Your task to perform on an android device: check battery use Image 0: 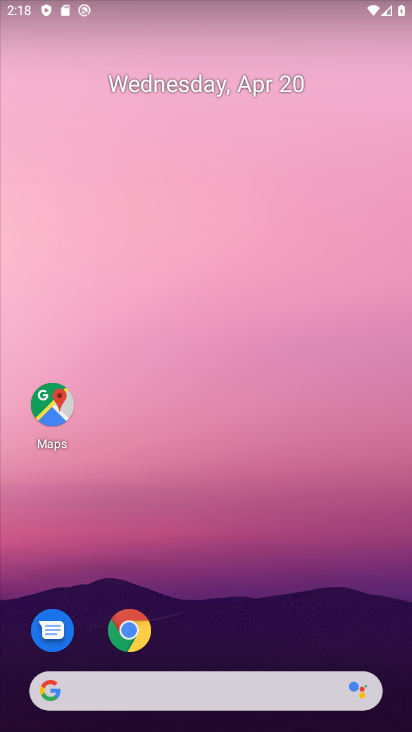
Step 0: press home button
Your task to perform on an android device: check battery use Image 1: 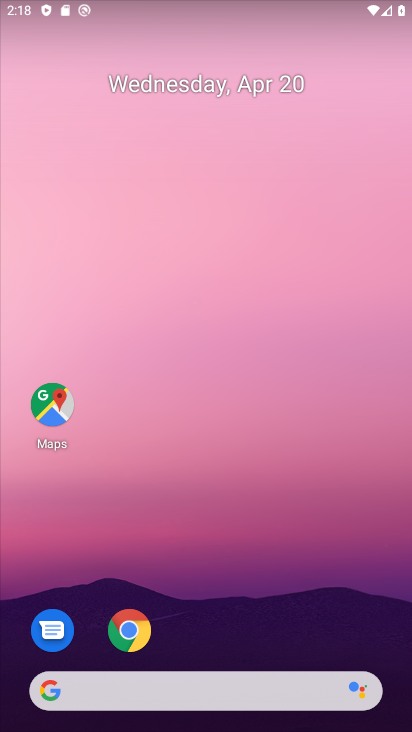
Step 1: drag from (173, 544) to (77, 148)
Your task to perform on an android device: check battery use Image 2: 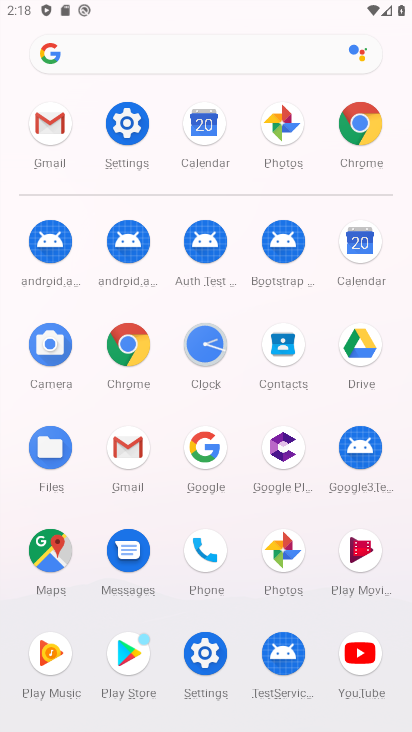
Step 2: click (143, 109)
Your task to perform on an android device: check battery use Image 3: 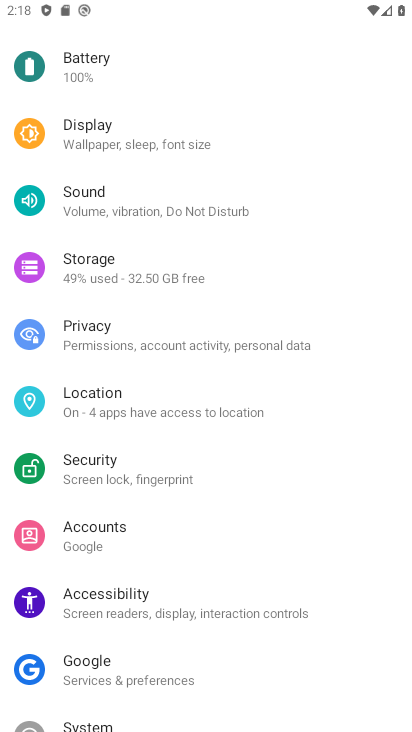
Step 3: click (70, 72)
Your task to perform on an android device: check battery use Image 4: 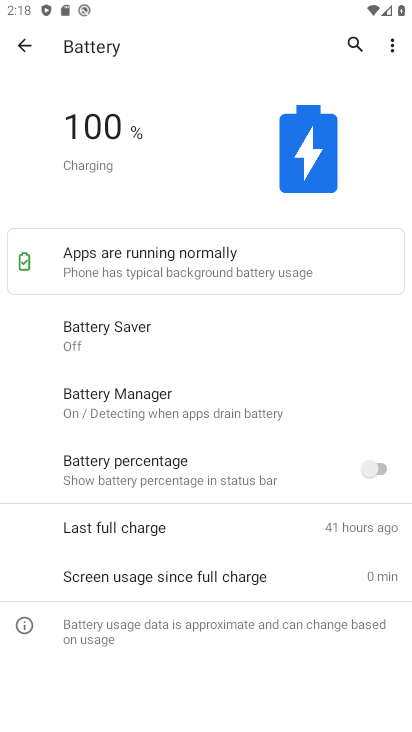
Step 4: click (141, 569)
Your task to perform on an android device: check battery use Image 5: 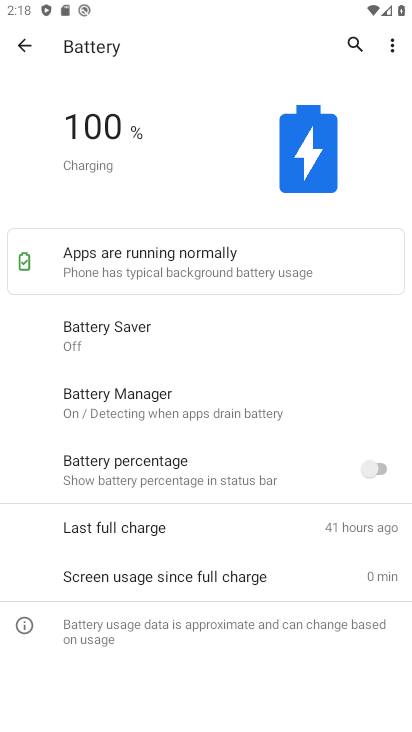
Step 5: click (103, 576)
Your task to perform on an android device: check battery use Image 6: 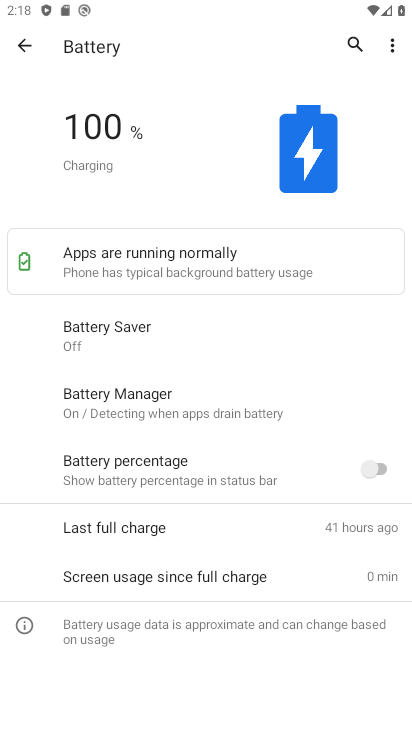
Step 6: click (103, 576)
Your task to perform on an android device: check battery use Image 7: 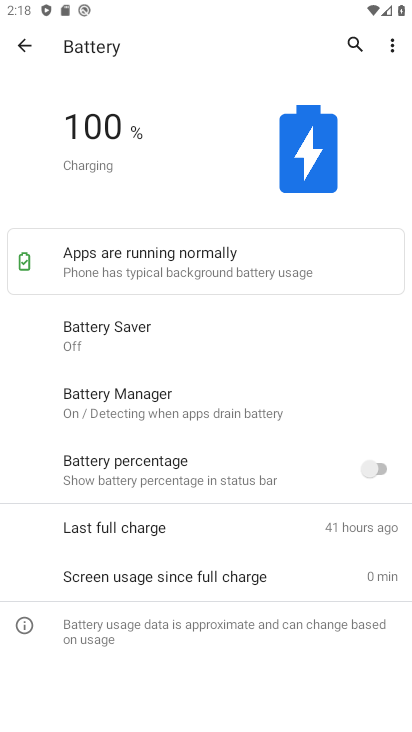
Step 7: task complete